Your task to perform on an android device: turn on sleep mode Image 0: 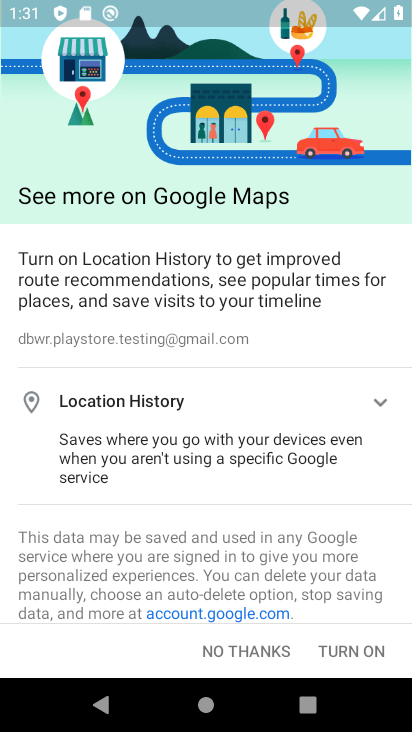
Step 0: press home button
Your task to perform on an android device: turn on sleep mode Image 1: 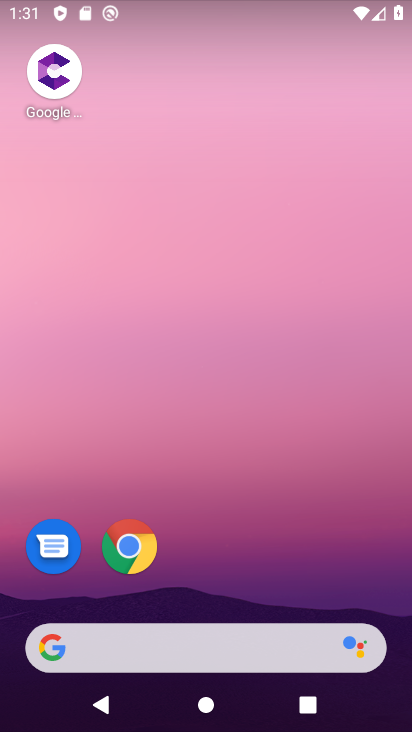
Step 1: drag from (140, 613) to (302, 67)
Your task to perform on an android device: turn on sleep mode Image 2: 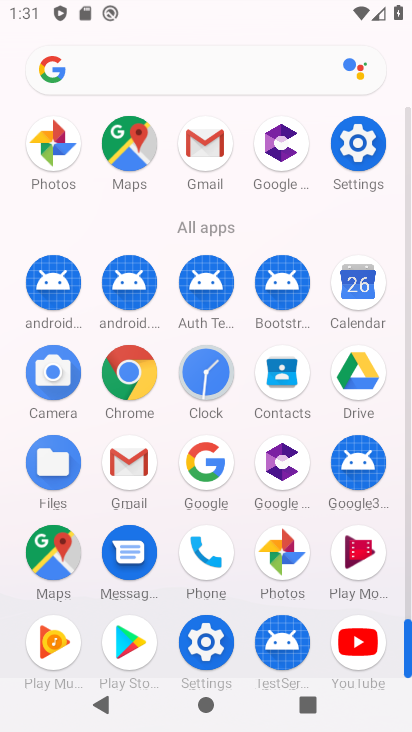
Step 2: drag from (207, 532) to (285, 350)
Your task to perform on an android device: turn on sleep mode Image 3: 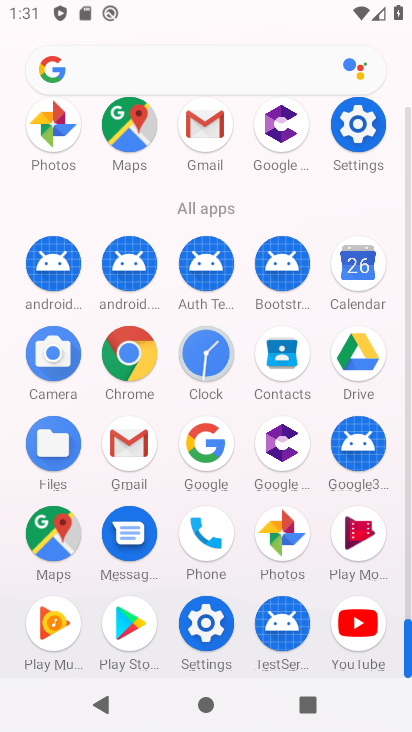
Step 3: click (214, 635)
Your task to perform on an android device: turn on sleep mode Image 4: 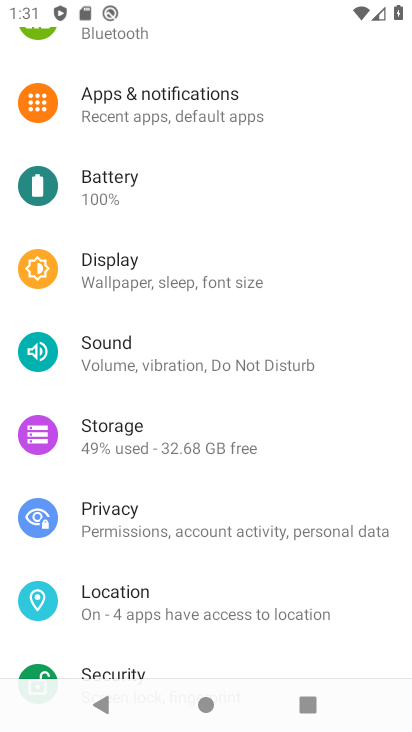
Step 4: click (131, 277)
Your task to perform on an android device: turn on sleep mode Image 5: 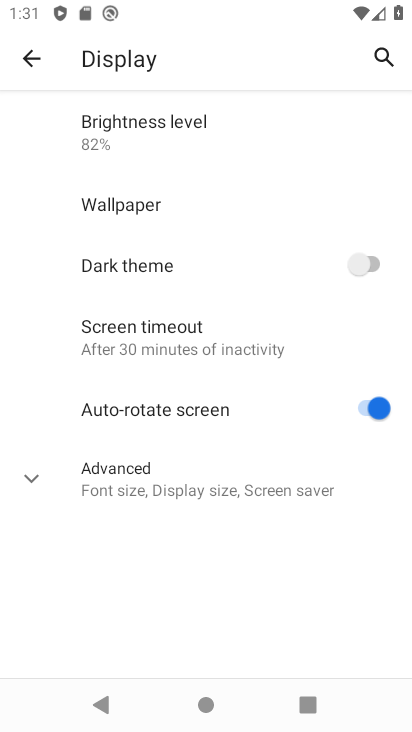
Step 5: click (222, 486)
Your task to perform on an android device: turn on sleep mode Image 6: 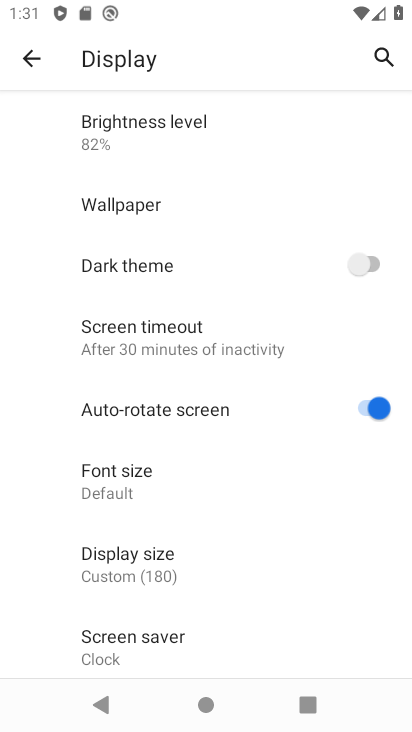
Step 6: task complete